Your task to perform on an android device: Open Yahoo.com Image 0: 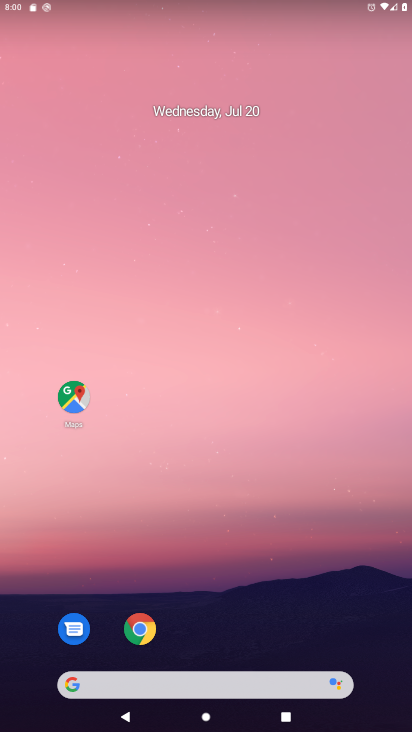
Step 0: click (143, 629)
Your task to perform on an android device: Open Yahoo.com Image 1: 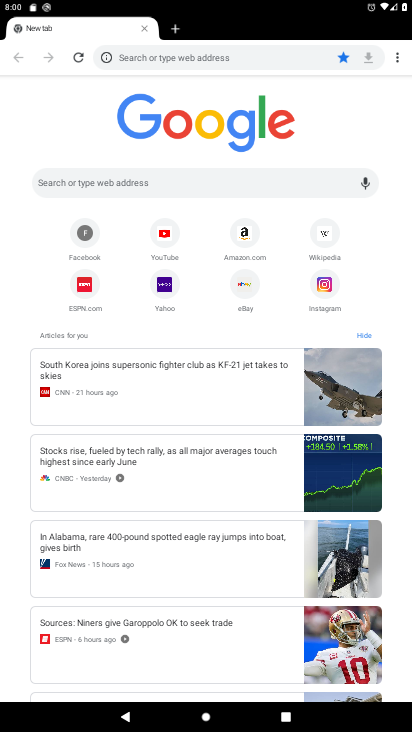
Step 1: click (169, 295)
Your task to perform on an android device: Open Yahoo.com Image 2: 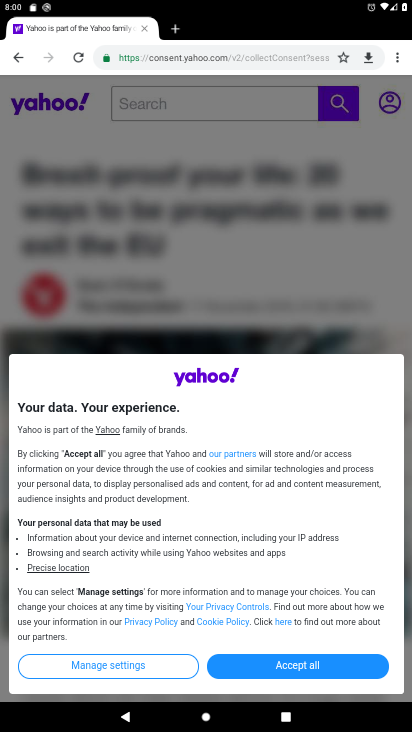
Step 2: task complete